Your task to perform on an android device: Search for razer blade on amazon, select the first entry, and add it to the cart. Image 0: 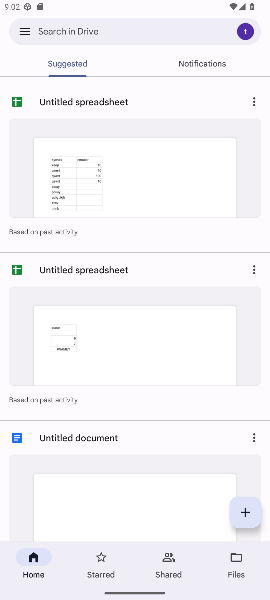
Step 0: press home button
Your task to perform on an android device: Search for razer blade on amazon, select the first entry, and add it to the cart. Image 1: 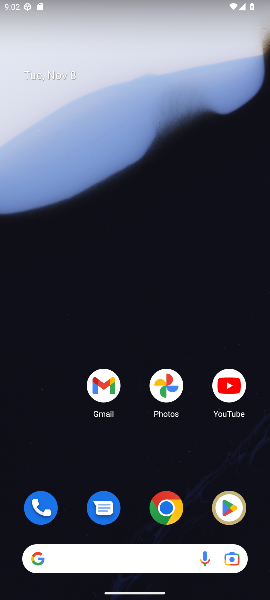
Step 1: click (160, 503)
Your task to perform on an android device: Search for razer blade on amazon, select the first entry, and add it to the cart. Image 2: 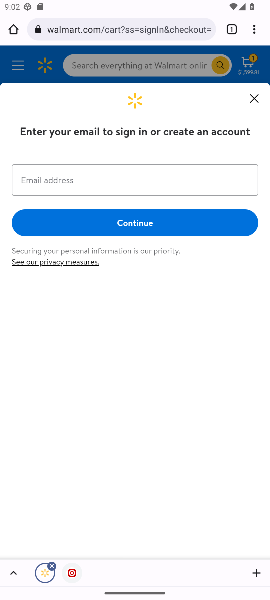
Step 2: click (144, 24)
Your task to perform on an android device: Search for razer blade on amazon, select the first entry, and add it to the cart. Image 3: 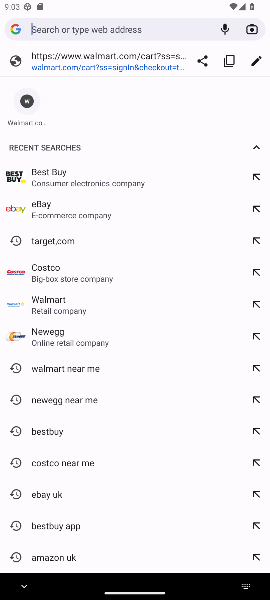
Step 3: type "amazon"
Your task to perform on an android device: Search for razer blade on amazon, select the first entry, and add it to the cart. Image 4: 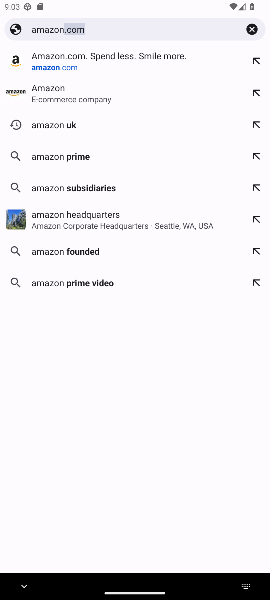
Step 4: click (75, 66)
Your task to perform on an android device: Search for razer blade on amazon, select the first entry, and add it to the cart. Image 5: 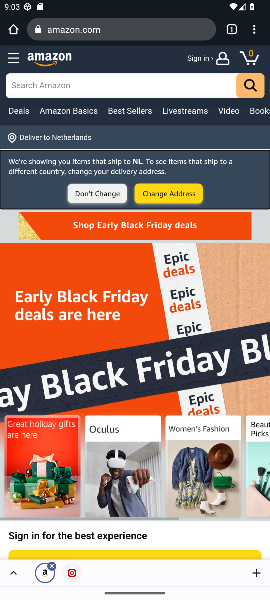
Step 5: click (87, 80)
Your task to perform on an android device: Search for razer blade on amazon, select the first entry, and add it to the cart. Image 6: 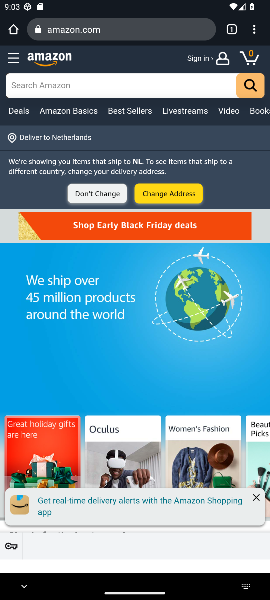
Step 6: type "razer blade"
Your task to perform on an android device: Search for razer blade on amazon, select the first entry, and add it to the cart. Image 7: 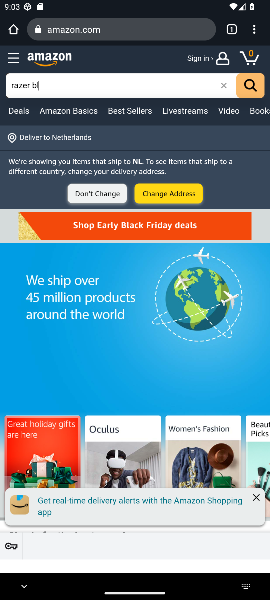
Step 7: type ""
Your task to perform on an android device: Search for razer blade on amazon, select the first entry, and add it to the cart. Image 8: 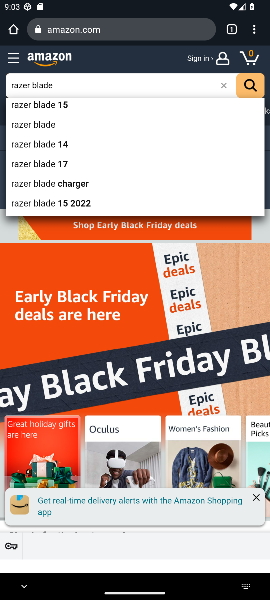
Step 8: click (47, 126)
Your task to perform on an android device: Search for razer blade on amazon, select the first entry, and add it to the cart. Image 9: 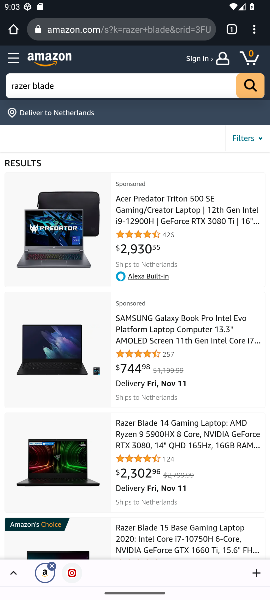
Step 9: click (142, 433)
Your task to perform on an android device: Search for razer blade on amazon, select the first entry, and add it to the cart. Image 10: 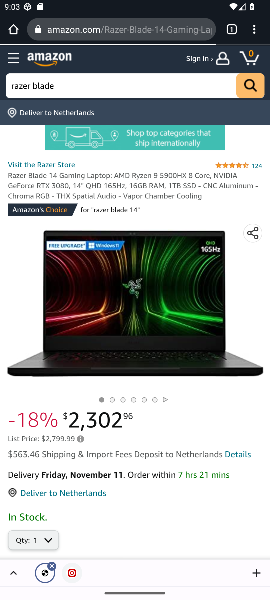
Step 10: drag from (172, 438) to (217, 213)
Your task to perform on an android device: Search for razer blade on amazon, select the first entry, and add it to the cart. Image 11: 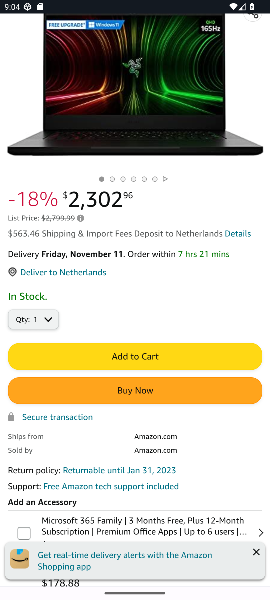
Step 11: click (256, 552)
Your task to perform on an android device: Search for razer blade on amazon, select the first entry, and add it to the cart. Image 12: 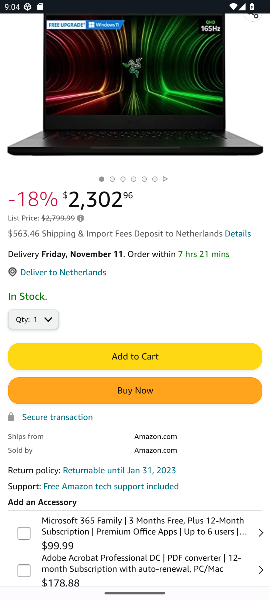
Step 12: click (137, 355)
Your task to perform on an android device: Search for razer blade on amazon, select the first entry, and add it to the cart. Image 13: 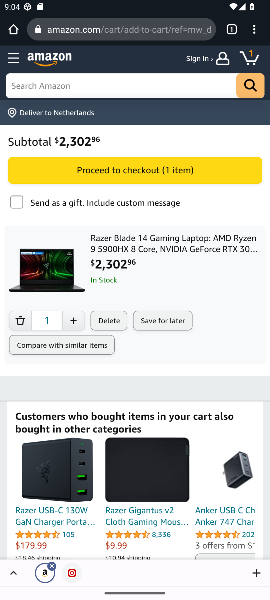
Step 13: task complete